Your task to perform on an android device: open app "Adobe Acrobat Reader" (install if not already installed) Image 0: 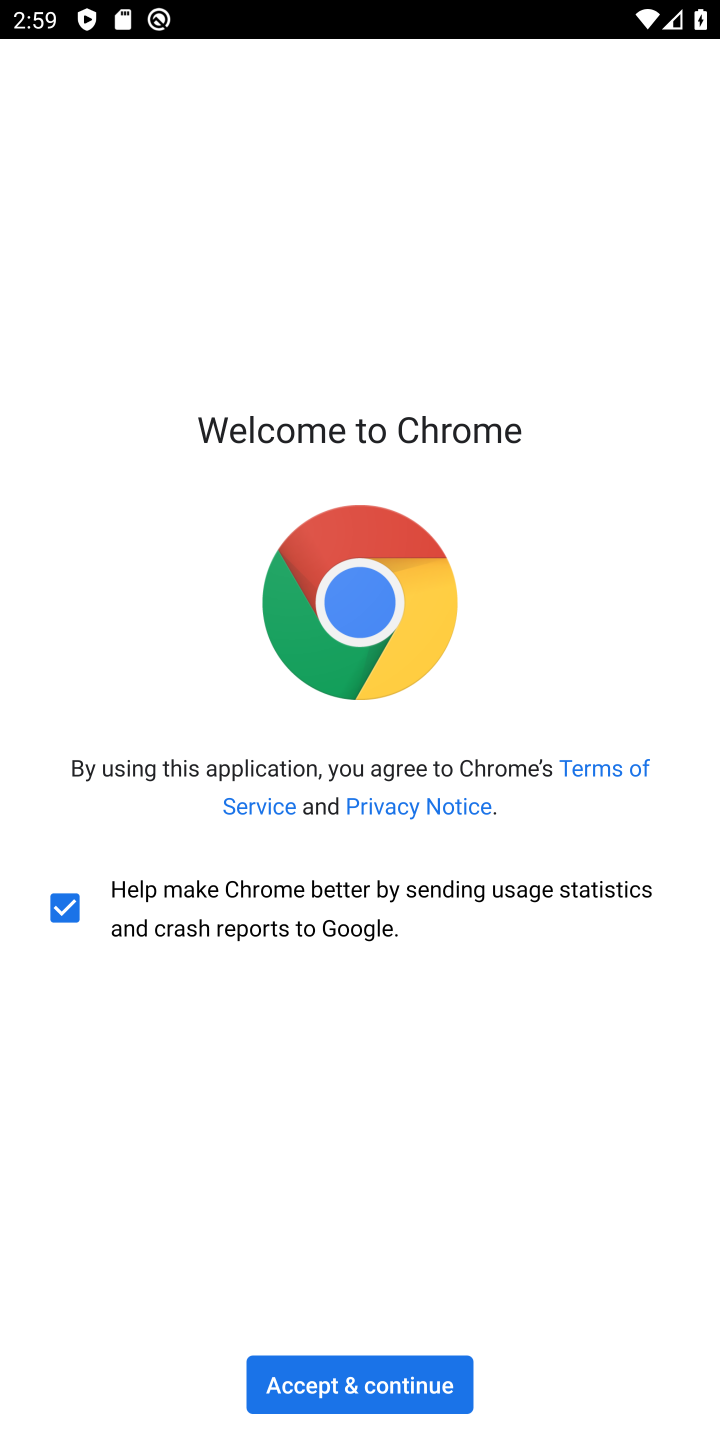
Step 0: press home button
Your task to perform on an android device: open app "Adobe Acrobat Reader" (install if not already installed) Image 1: 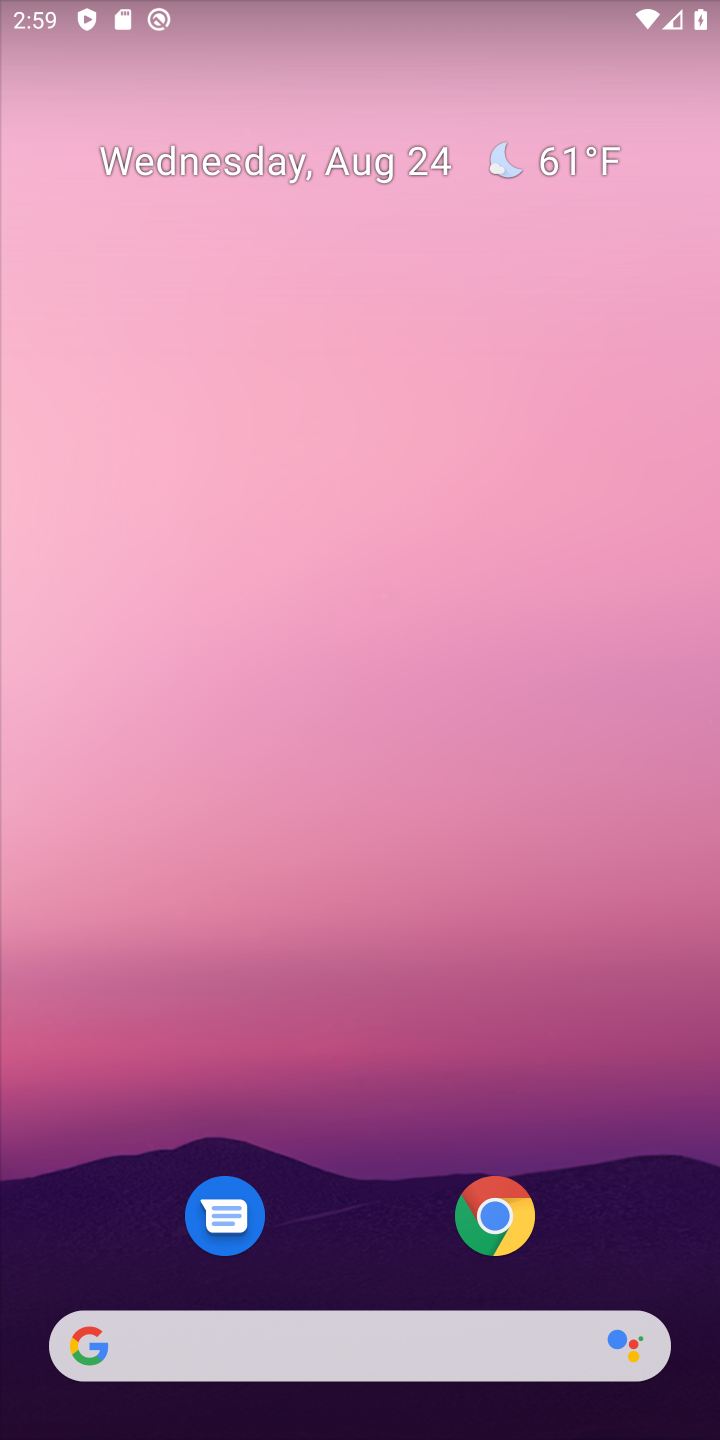
Step 1: drag from (636, 1166) to (622, 126)
Your task to perform on an android device: open app "Adobe Acrobat Reader" (install if not already installed) Image 2: 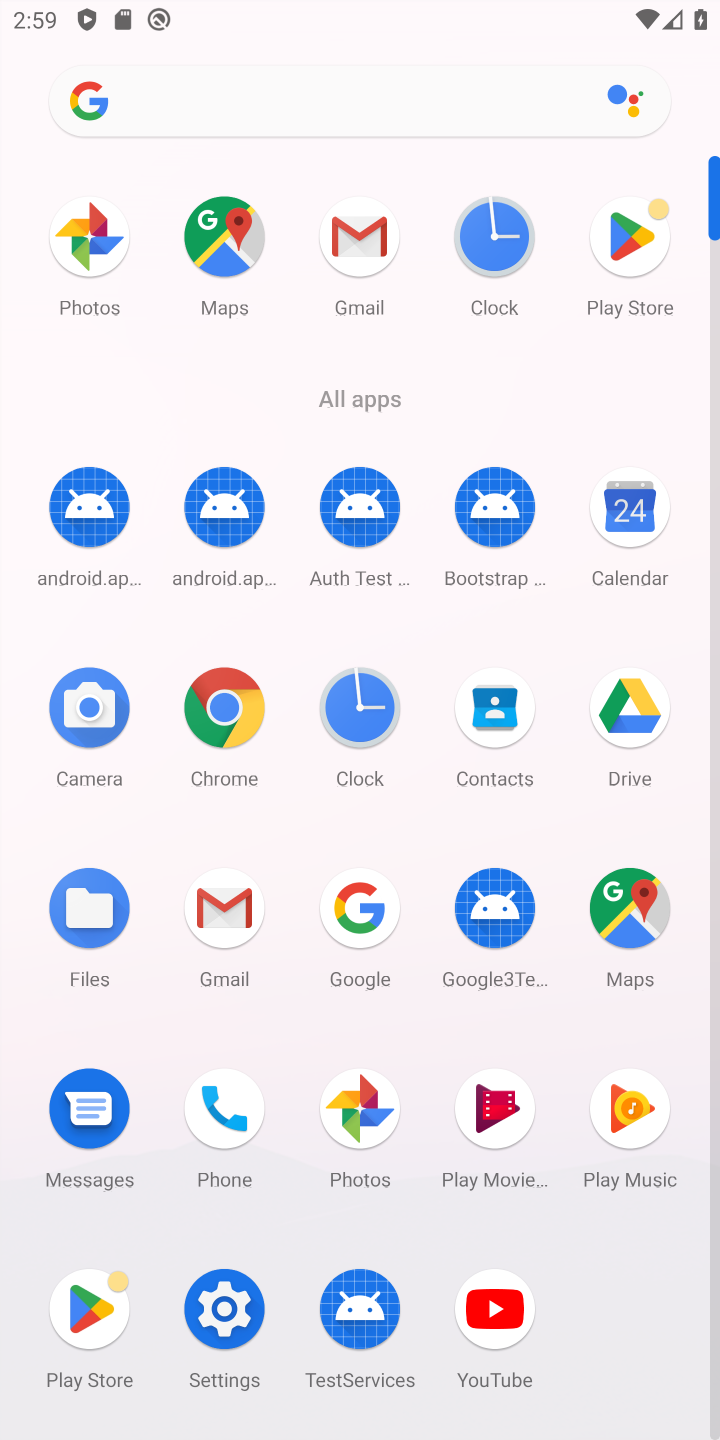
Step 2: click (630, 226)
Your task to perform on an android device: open app "Adobe Acrobat Reader" (install if not already installed) Image 3: 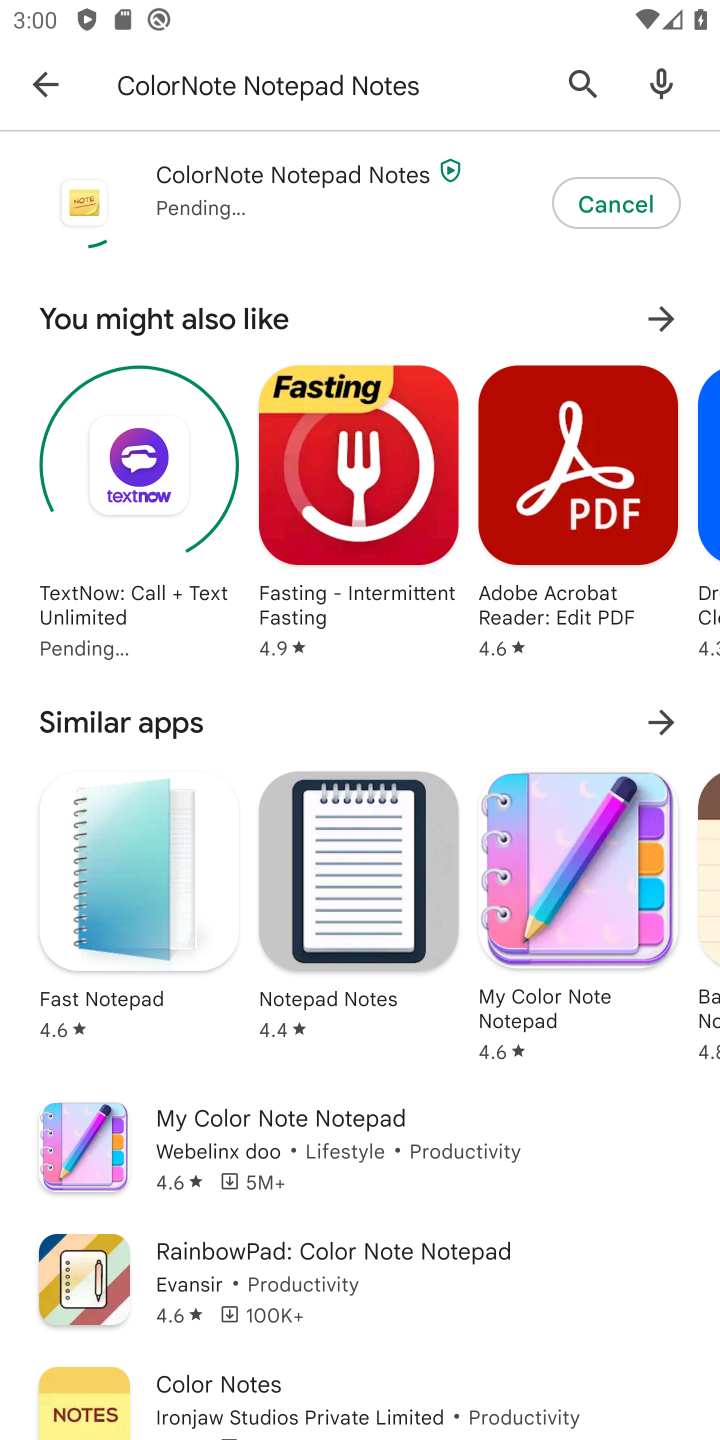
Step 3: press back button
Your task to perform on an android device: open app "Adobe Acrobat Reader" (install if not already installed) Image 4: 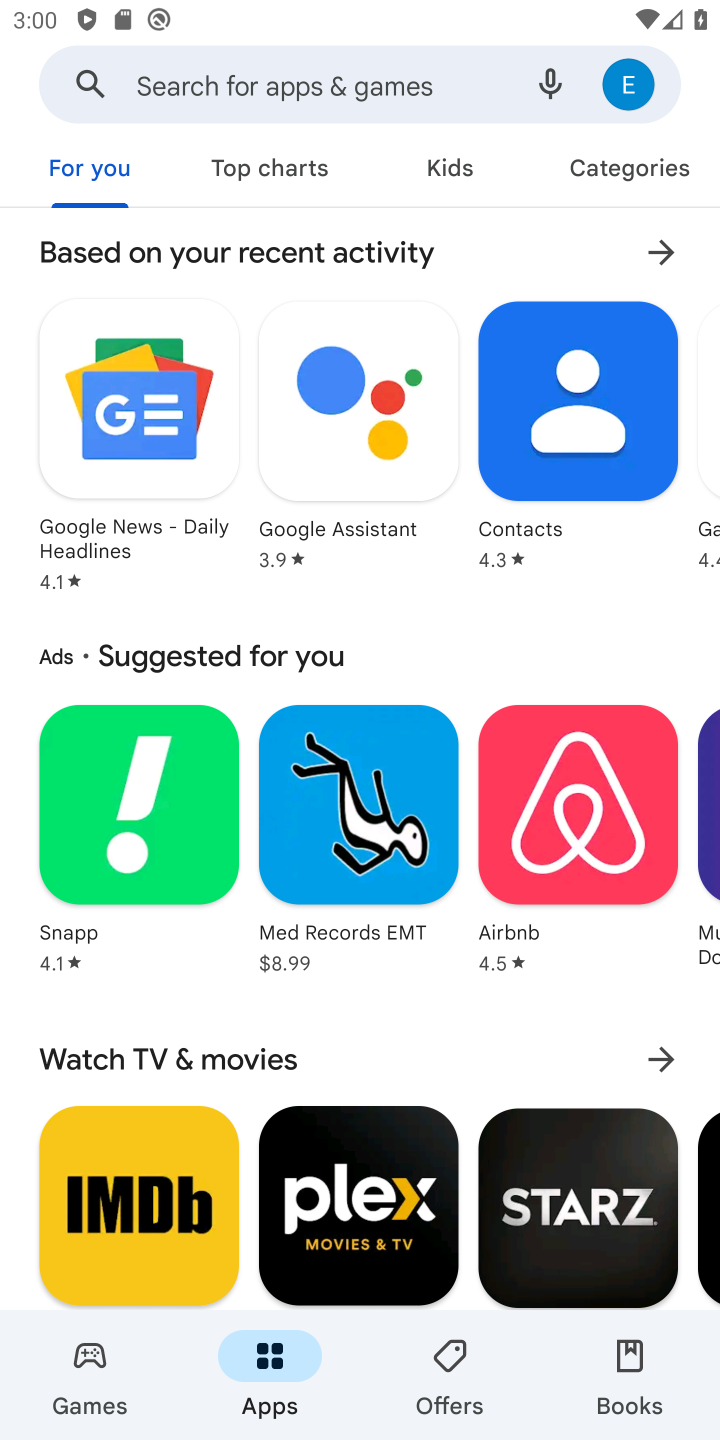
Step 4: click (420, 80)
Your task to perform on an android device: open app "Adobe Acrobat Reader" (install if not already installed) Image 5: 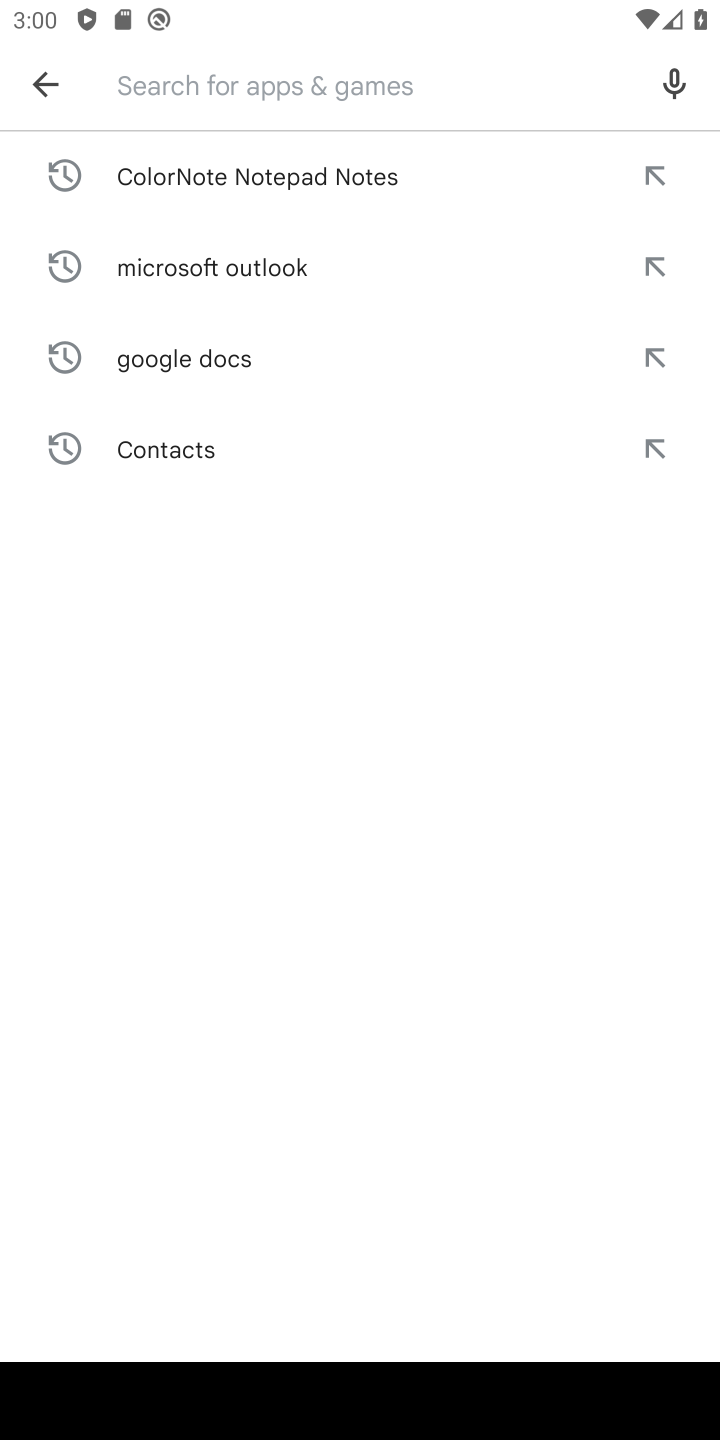
Step 5: type "Adobe Acrobat Reader"
Your task to perform on an android device: open app "Adobe Acrobat Reader" (install if not already installed) Image 6: 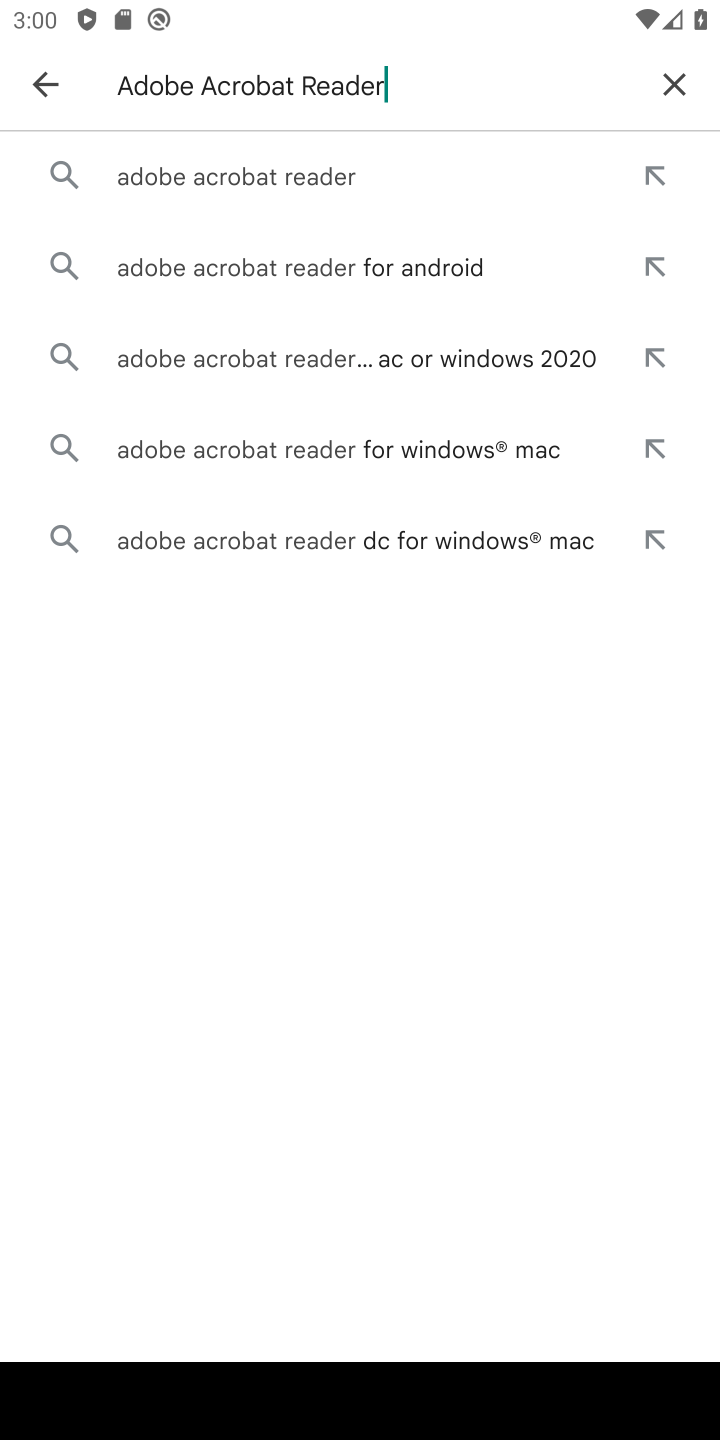
Step 6: press enter
Your task to perform on an android device: open app "Adobe Acrobat Reader" (install if not already installed) Image 7: 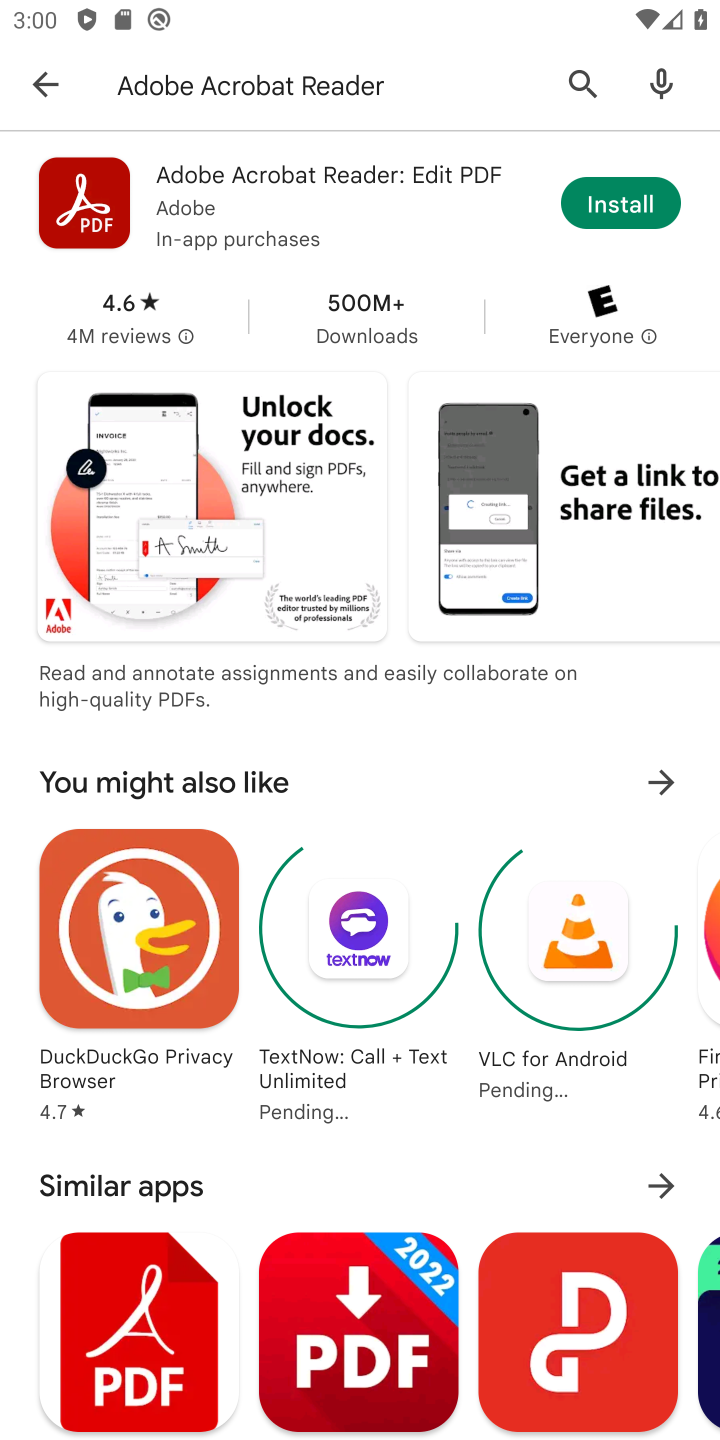
Step 7: click (613, 207)
Your task to perform on an android device: open app "Adobe Acrobat Reader" (install if not already installed) Image 8: 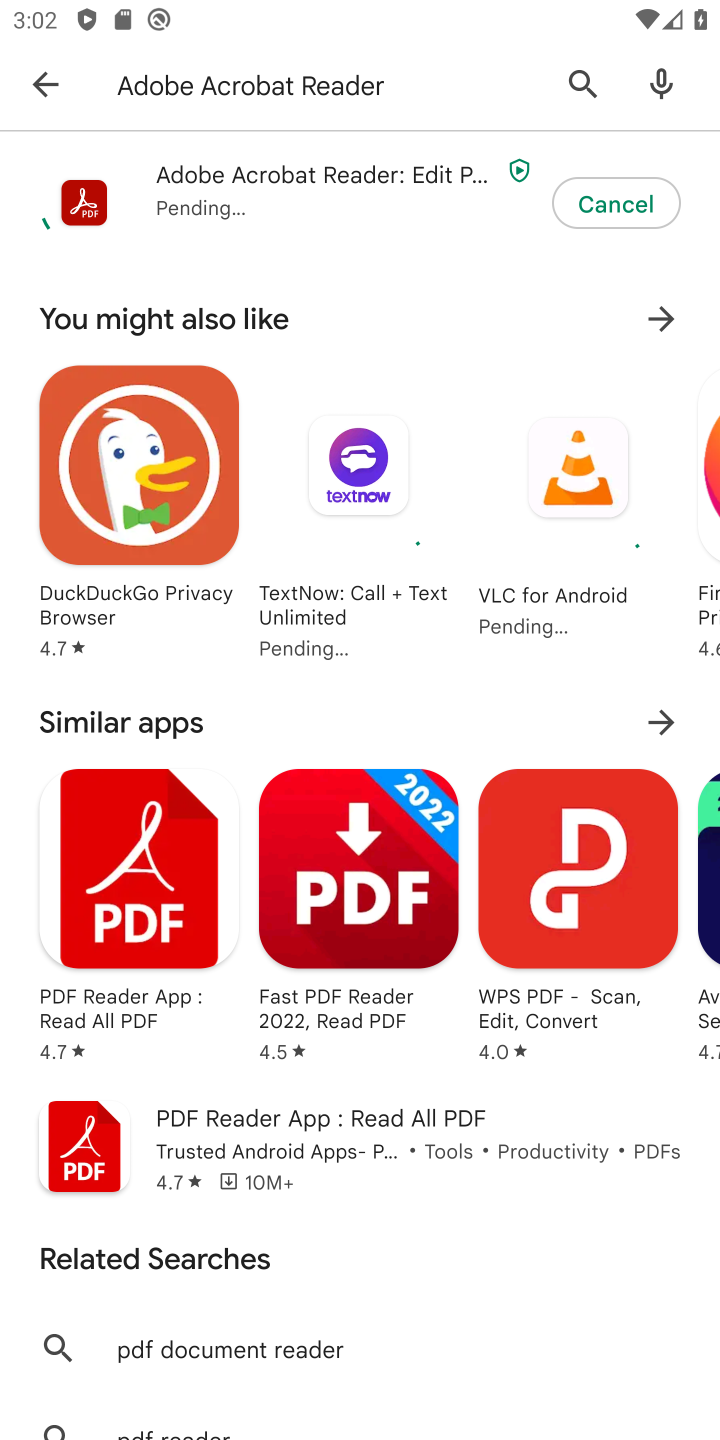
Step 8: task complete